Your task to perform on an android device: Go to network settings Image 0: 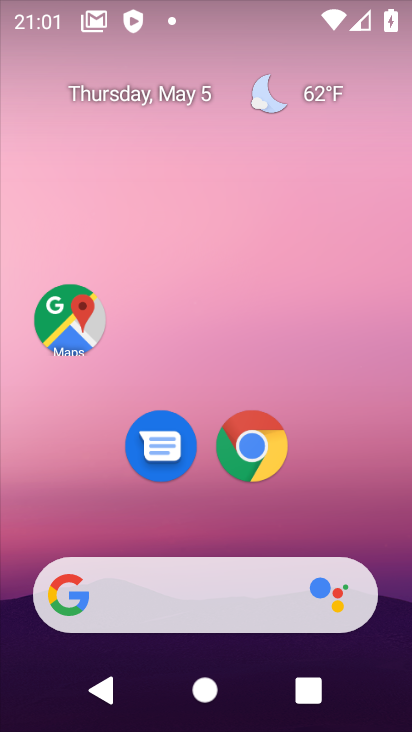
Step 0: drag from (244, 627) to (295, 199)
Your task to perform on an android device: Go to network settings Image 1: 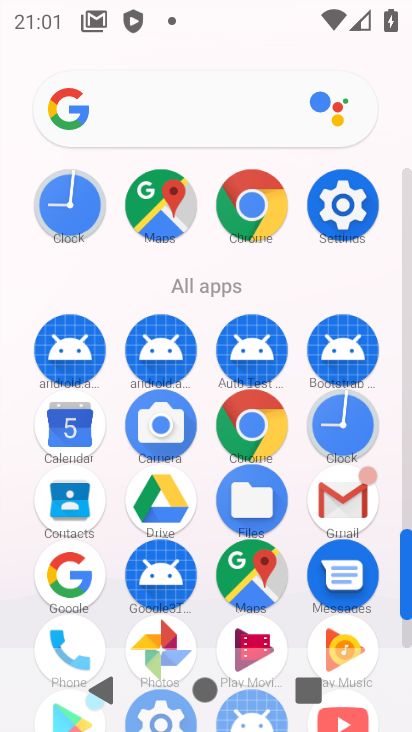
Step 1: click (351, 207)
Your task to perform on an android device: Go to network settings Image 2: 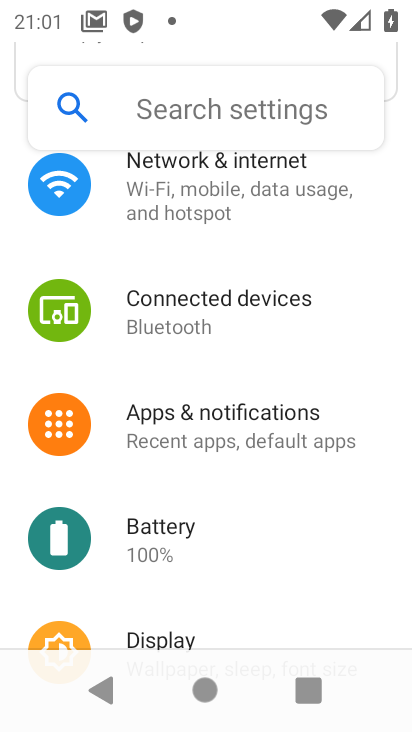
Step 2: click (180, 207)
Your task to perform on an android device: Go to network settings Image 3: 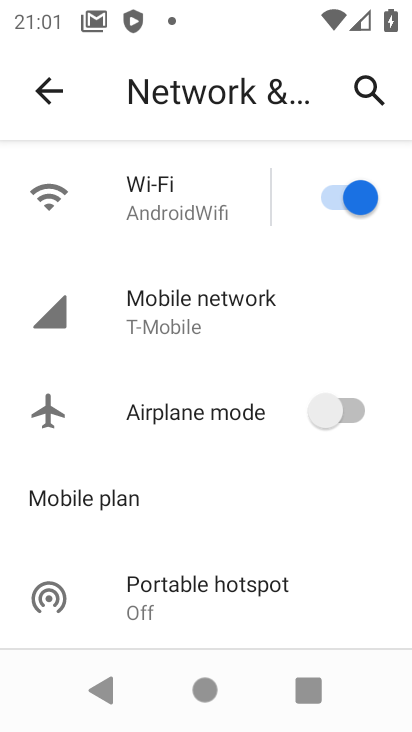
Step 3: click (204, 300)
Your task to perform on an android device: Go to network settings Image 4: 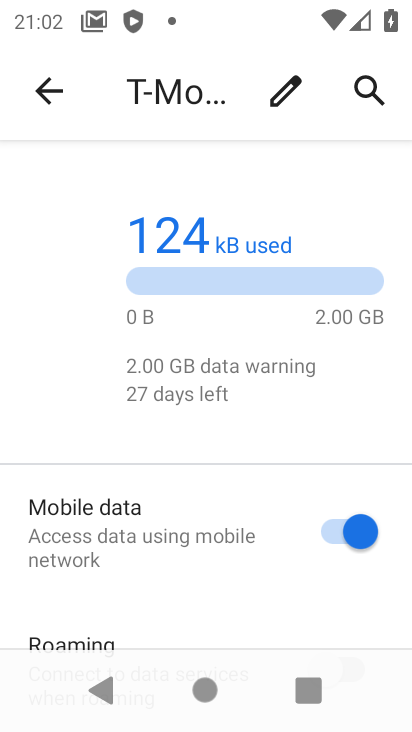
Step 4: task complete